Your task to perform on an android device: Find coffee shops on Maps Image 0: 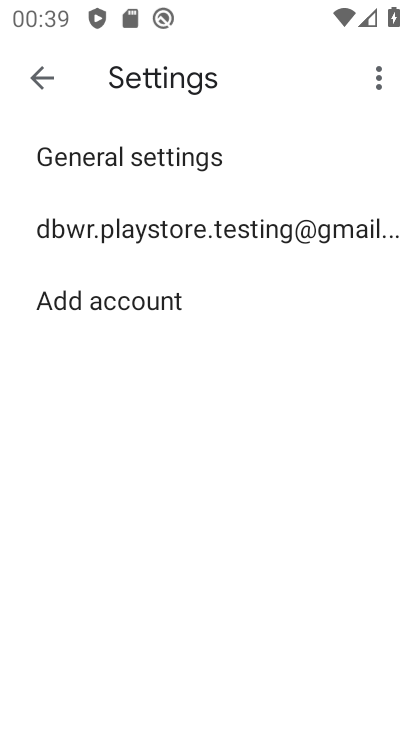
Step 0: press home button
Your task to perform on an android device: Find coffee shops on Maps Image 1: 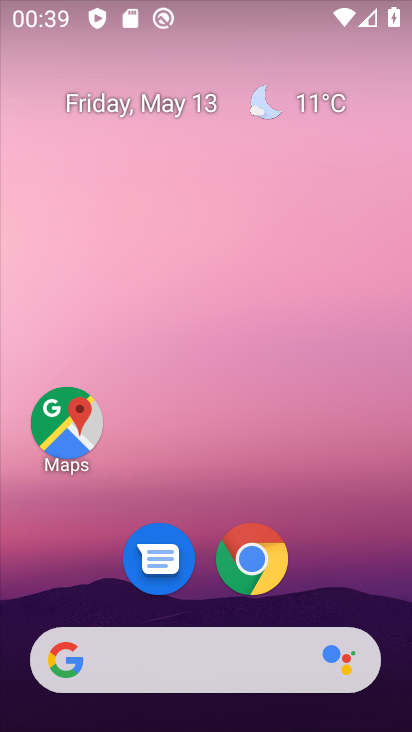
Step 1: drag from (329, 583) to (298, 80)
Your task to perform on an android device: Find coffee shops on Maps Image 2: 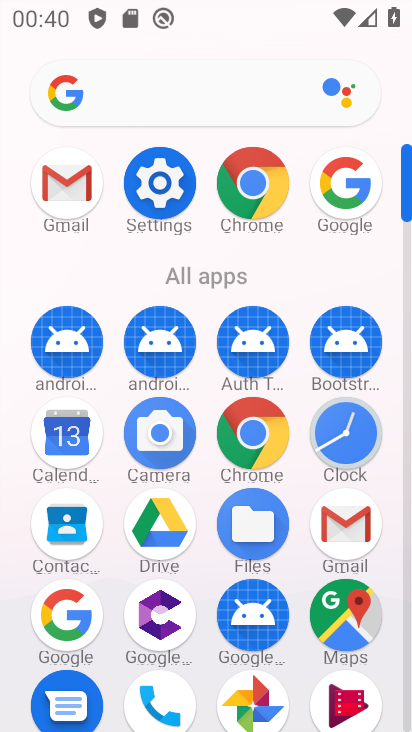
Step 2: click (340, 618)
Your task to perform on an android device: Find coffee shops on Maps Image 3: 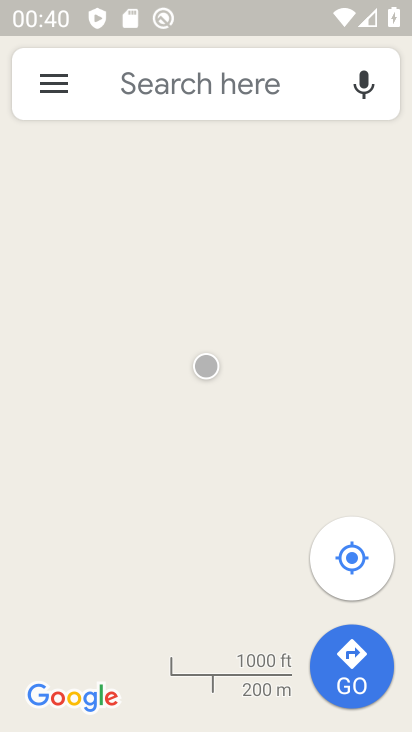
Step 3: click (197, 81)
Your task to perform on an android device: Find coffee shops on Maps Image 4: 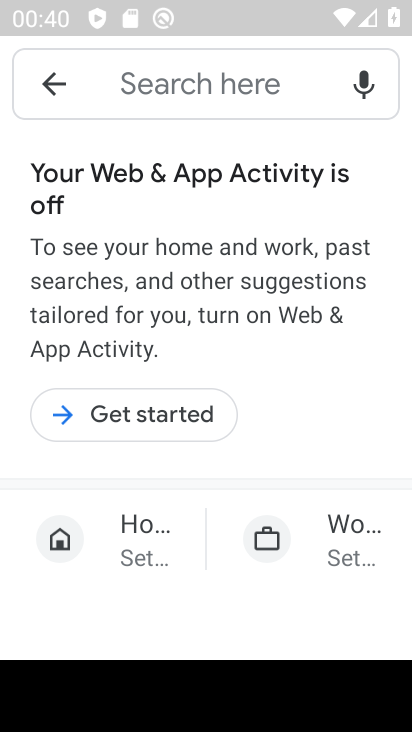
Step 4: click (145, 422)
Your task to perform on an android device: Find coffee shops on Maps Image 5: 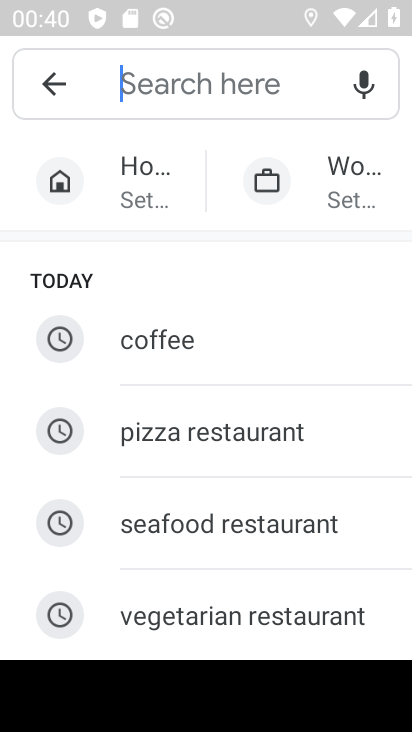
Step 5: click (205, 346)
Your task to perform on an android device: Find coffee shops on Maps Image 6: 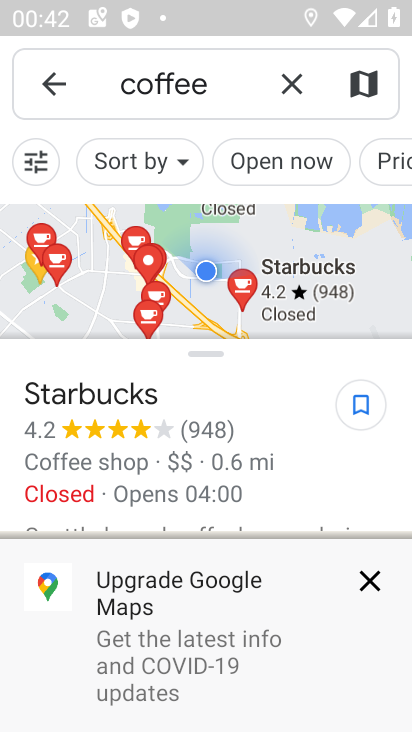
Step 6: task complete